Your task to perform on an android device: open a new tab in the chrome app Image 0: 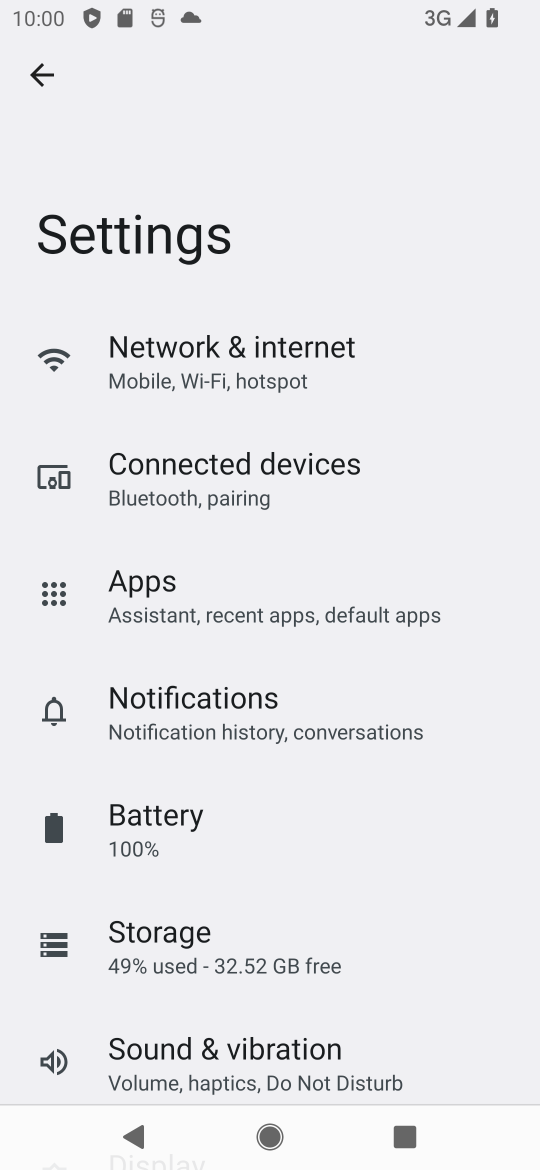
Step 0: press home button
Your task to perform on an android device: open a new tab in the chrome app Image 1: 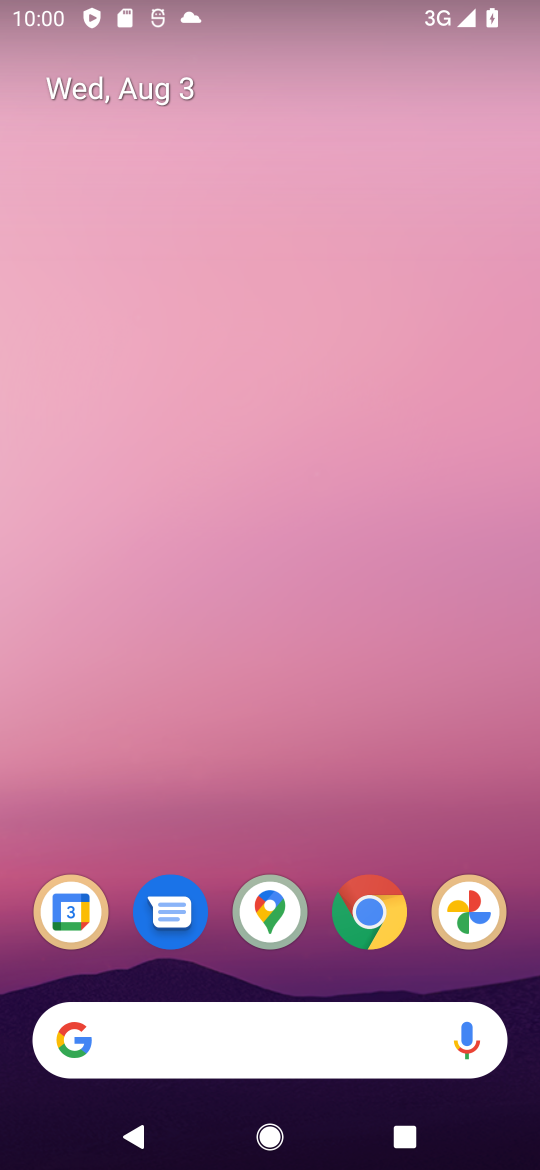
Step 1: drag from (309, 559) to (336, 25)
Your task to perform on an android device: open a new tab in the chrome app Image 2: 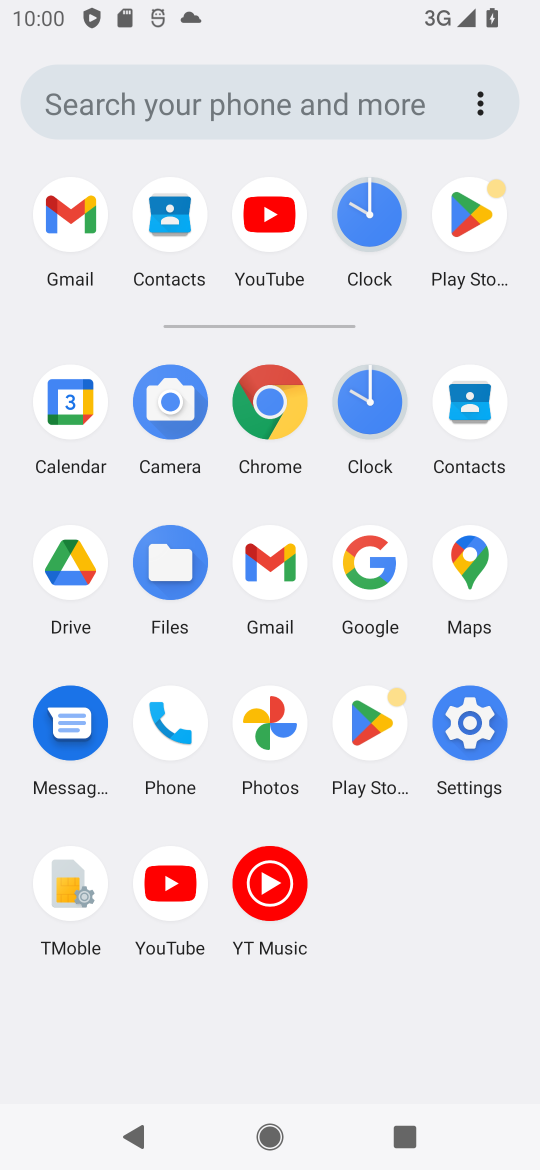
Step 2: click (273, 407)
Your task to perform on an android device: open a new tab in the chrome app Image 3: 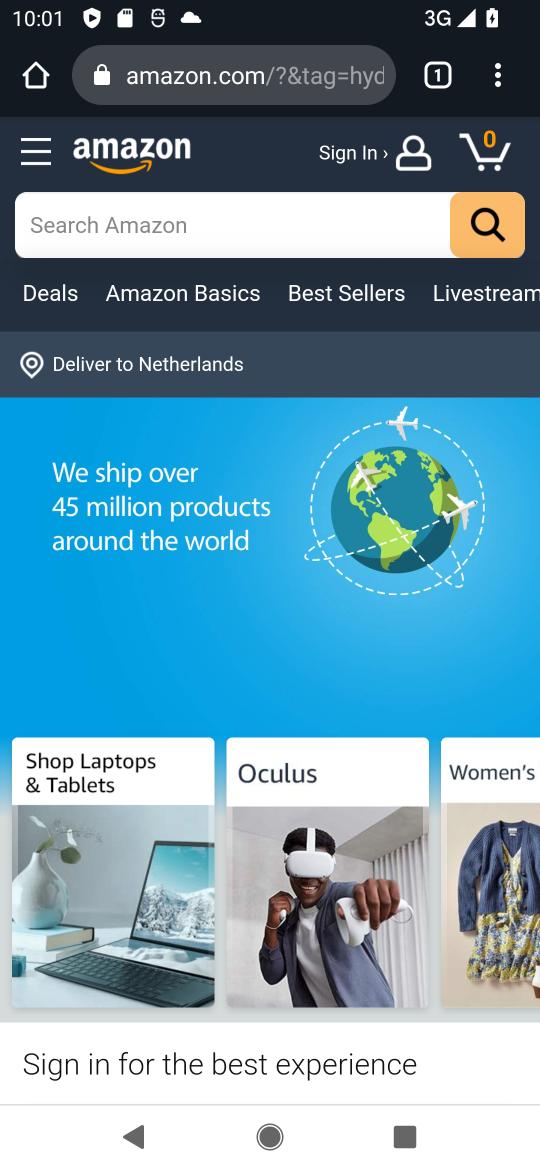
Step 3: task complete